Your task to perform on an android device: turn off wifi Image 0: 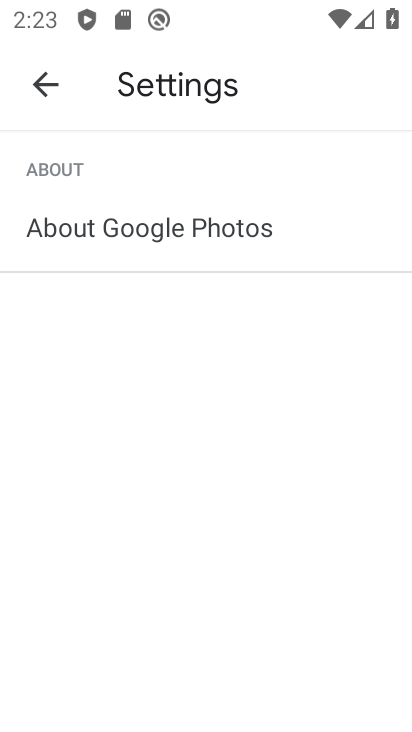
Step 0: press home button
Your task to perform on an android device: turn off wifi Image 1: 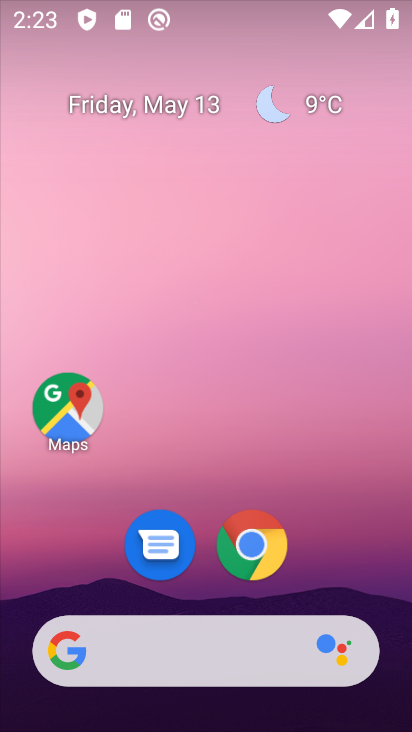
Step 1: drag from (252, 7) to (254, 432)
Your task to perform on an android device: turn off wifi Image 2: 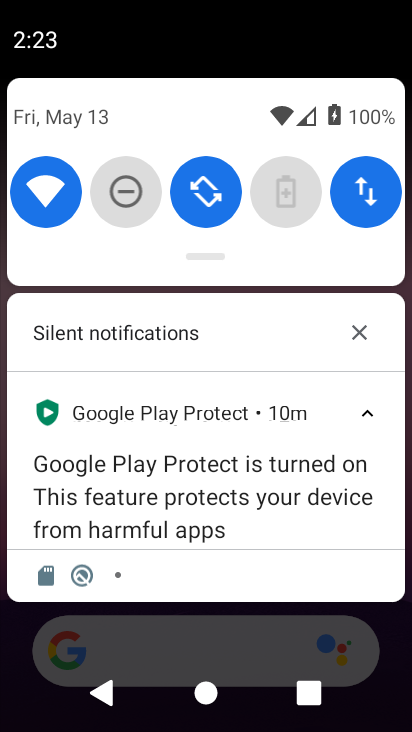
Step 2: click (46, 186)
Your task to perform on an android device: turn off wifi Image 3: 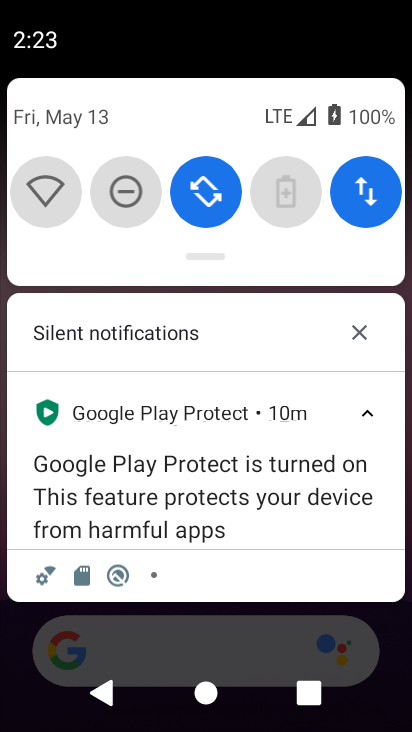
Step 3: task complete